Your task to perform on an android device: Go to Amazon Image 0: 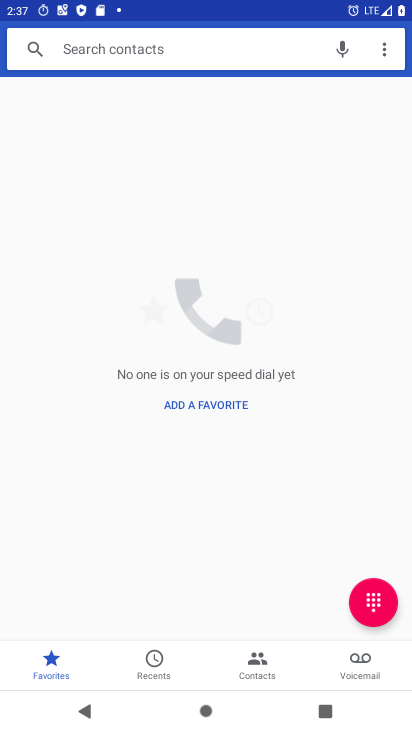
Step 0: task complete